Your task to perform on an android device: Go to location settings Image 0: 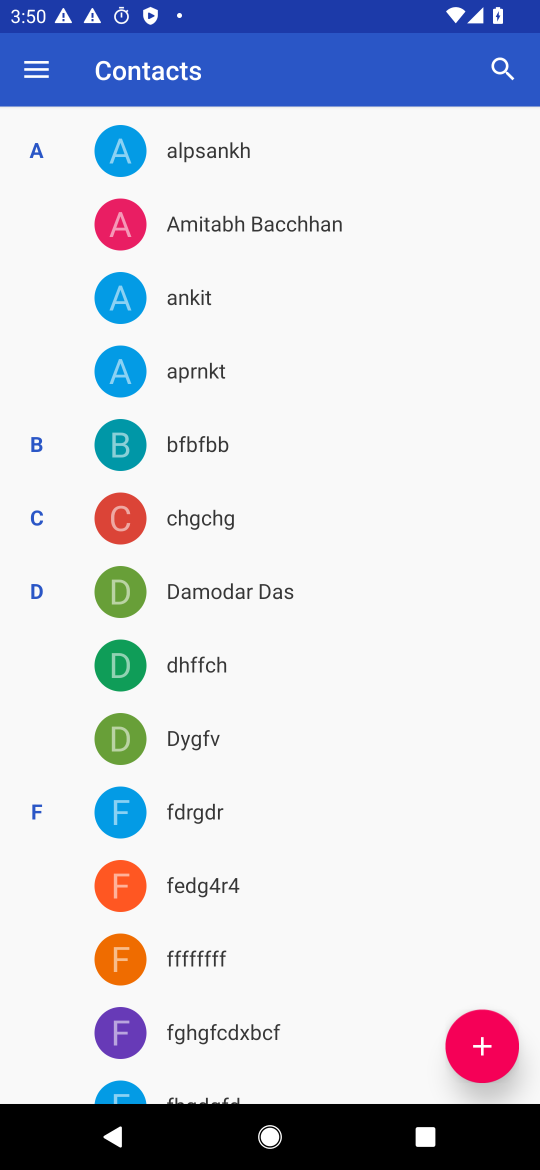
Step 0: press home button
Your task to perform on an android device: Go to location settings Image 1: 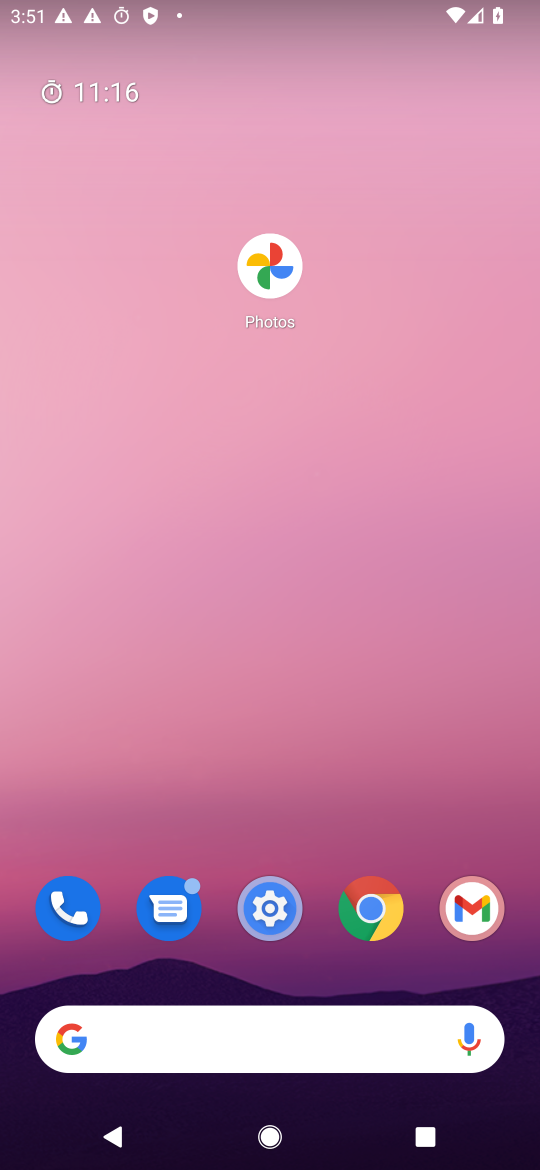
Step 1: drag from (277, 978) to (360, 245)
Your task to perform on an android device: Go to location settings Image 2: 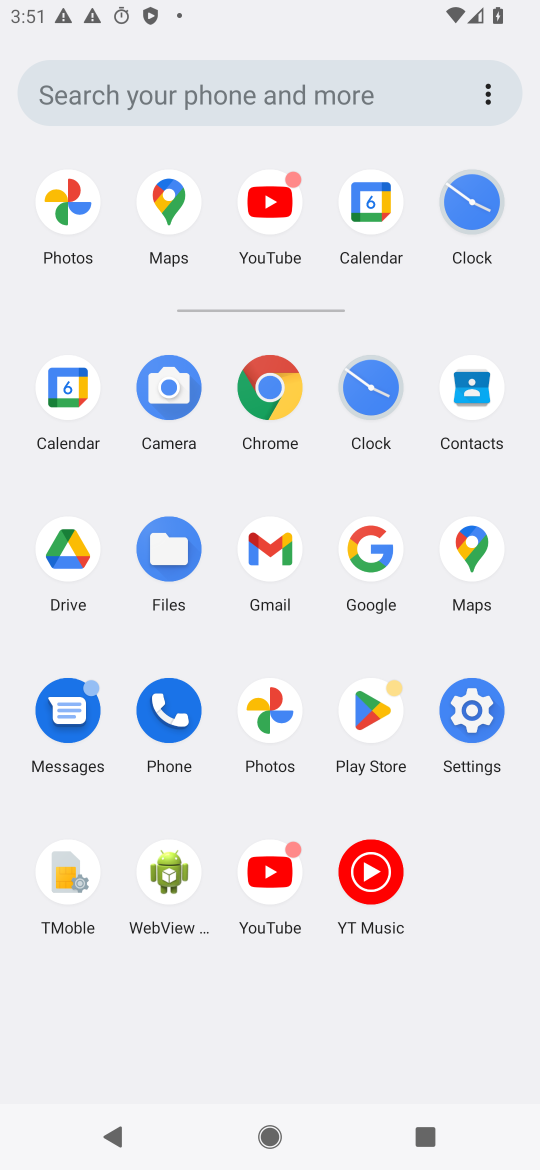
Step 2: click (504, 711)
Your task to perform on an android device: Go to location settings Image 3: 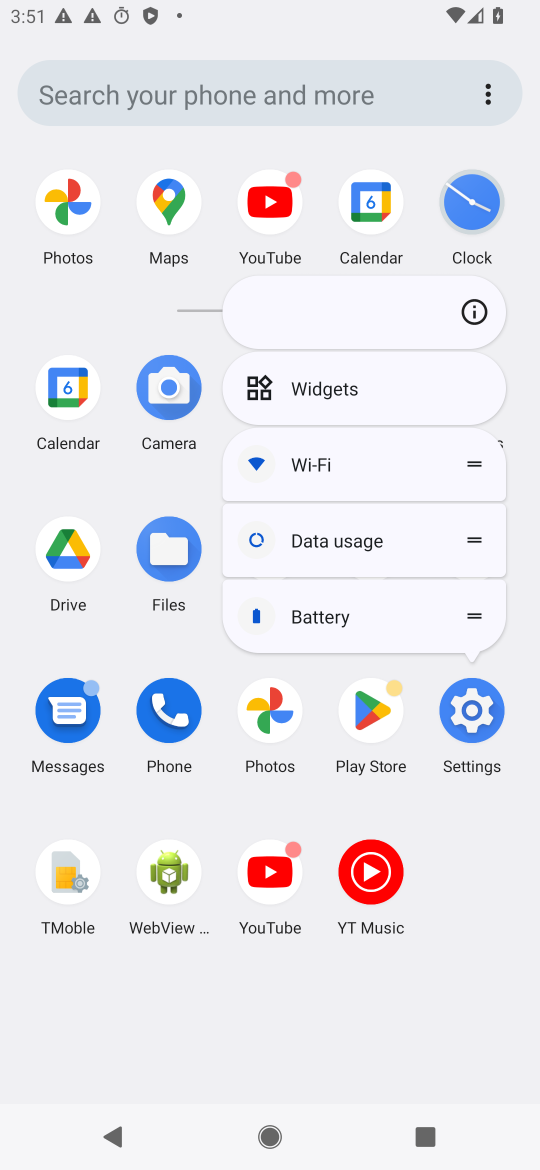
Step 3: click (462, 719)
Your task to perform on an android device: Go to location settings Image 4: 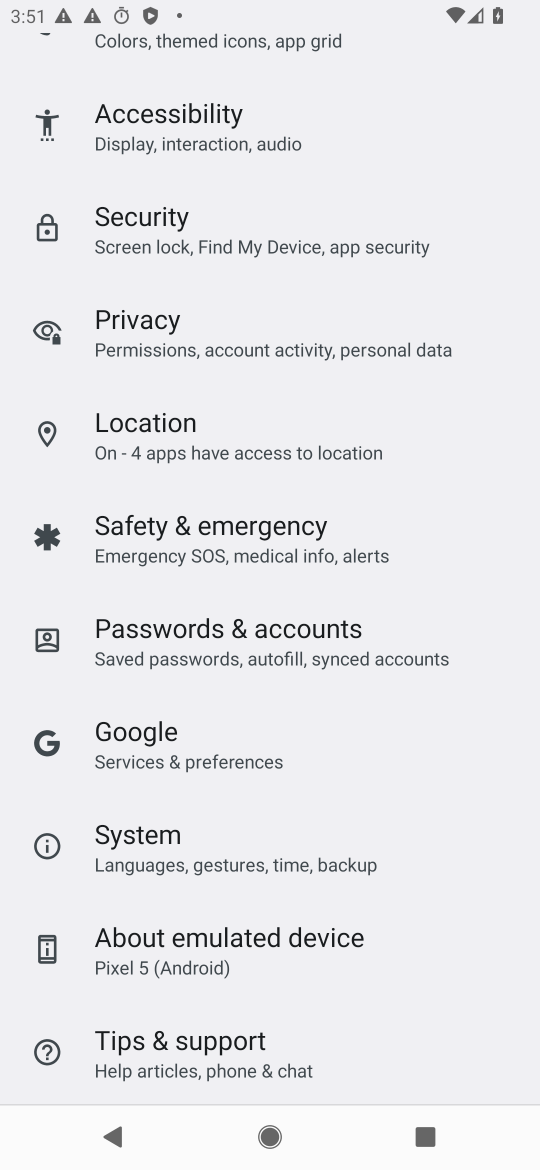
Step 4: click (190, 437)
Your task to perform on an android device: Go to location settings Image 5: 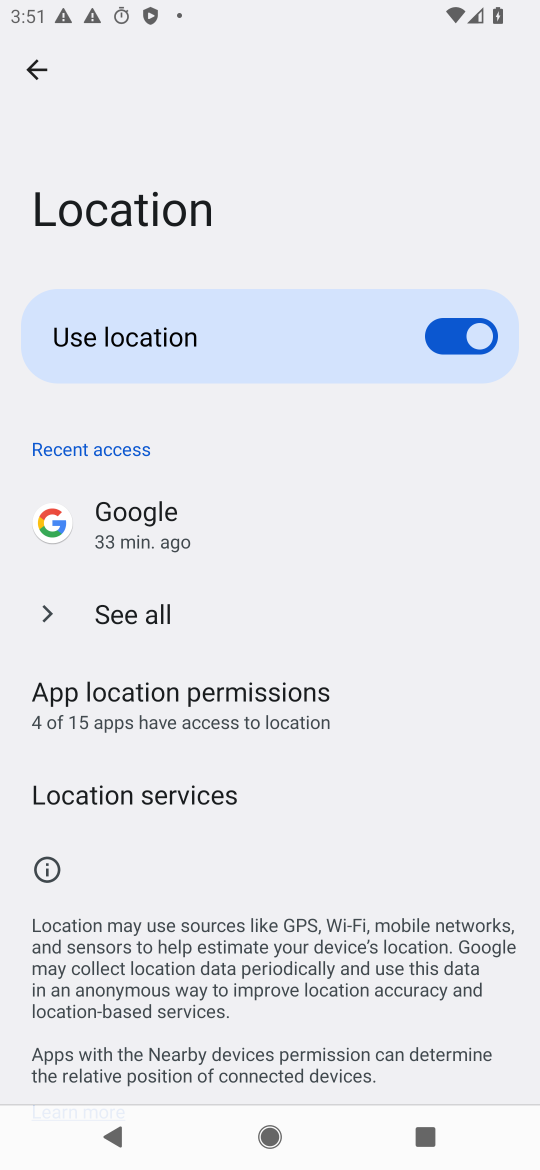
Step 5: task complete